Your task to perform on an android device: Go to battery settings Image 0: 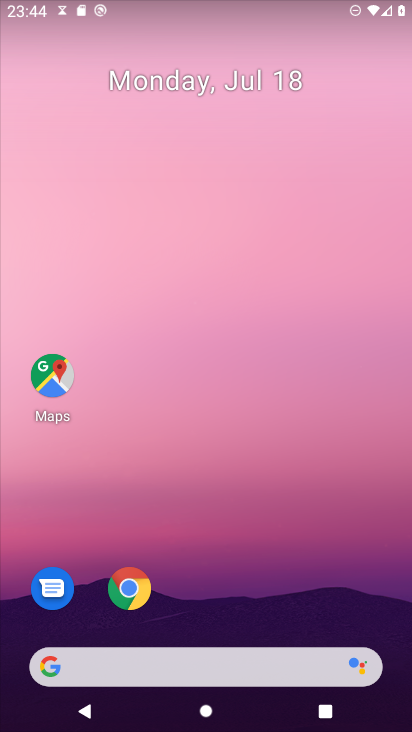
Step 0: press home button
Your task to perform on an android device: Go to battery settings Image 1: 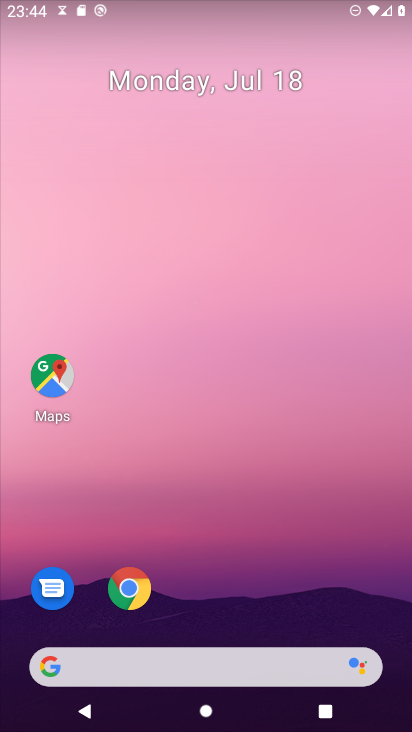
Step 1: drag from (281, 580) to (326, 7)
Your task to perform on an android device: Go to battery settings Image 2: 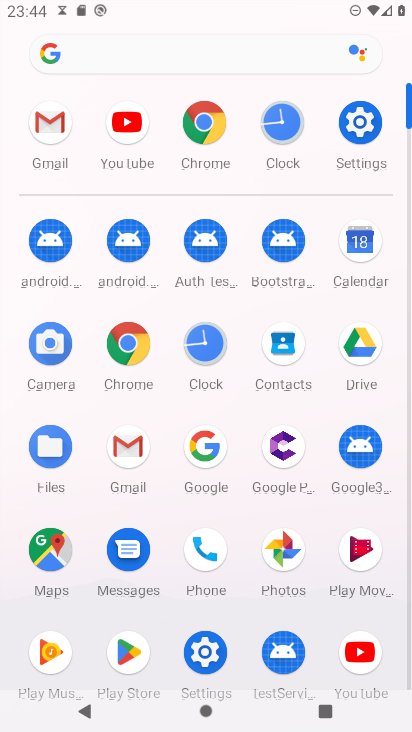
Step 2: click (364, 112)
Your task to perform on an android device: Go to battery settings Image 3: 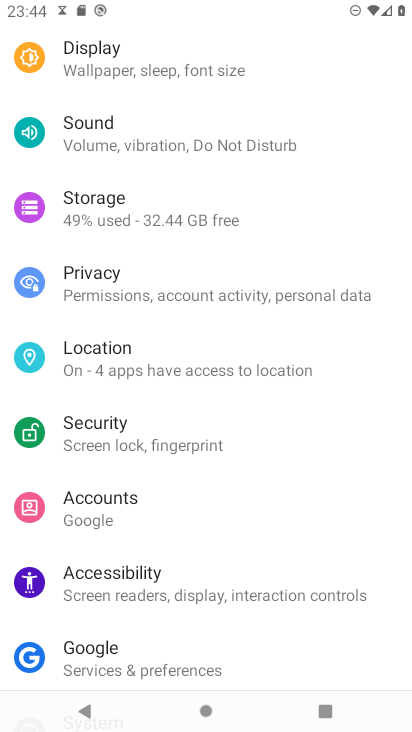
Step 3: drag from (104, 168) to (76, 441)
Your task to perform on an android device: Go to battery settings Image 4: 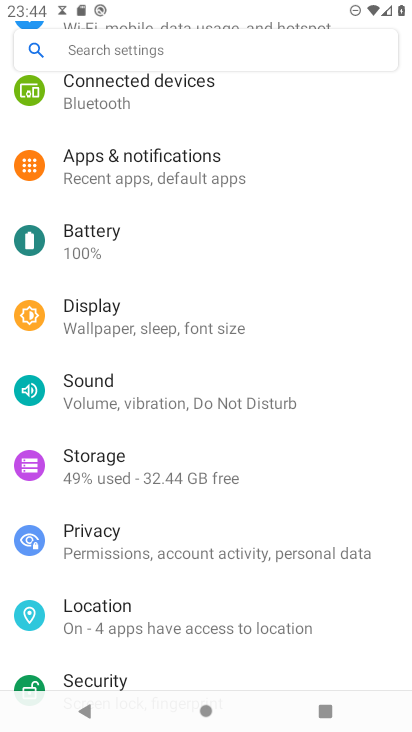
Step 4: click (94, 233)
Your task to perform on an android device: Go to battery settings Image 5: 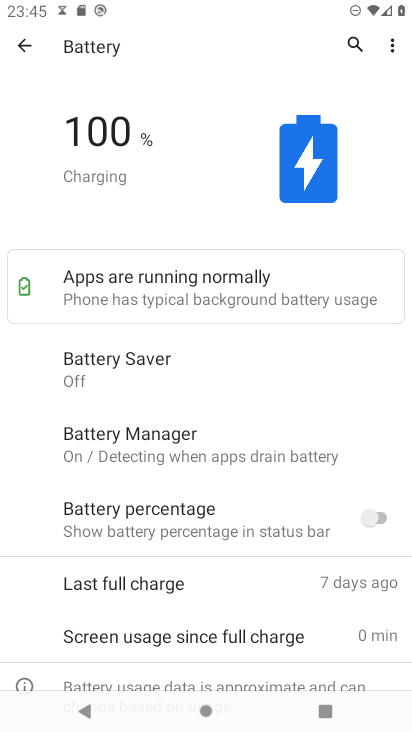
Step 5: task complete